Your task to perform on an android device: Open the calendar app, open the side menu, and click the "Day" option Image 0: 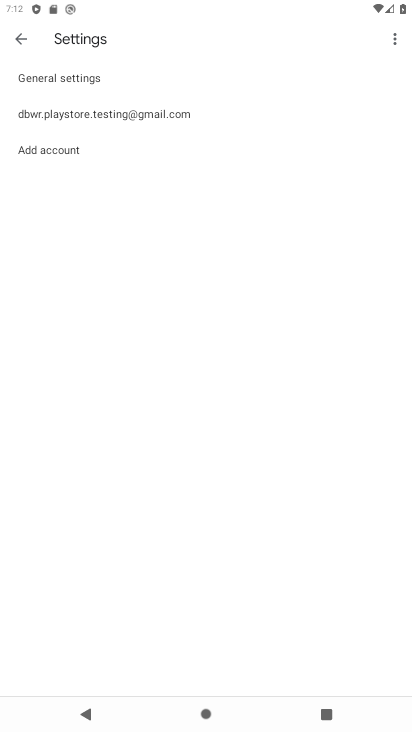
Step 0: press home button
Your task to perform on an android device: Open the calendar app, open the side menu, and click the "Day" option Image 1: 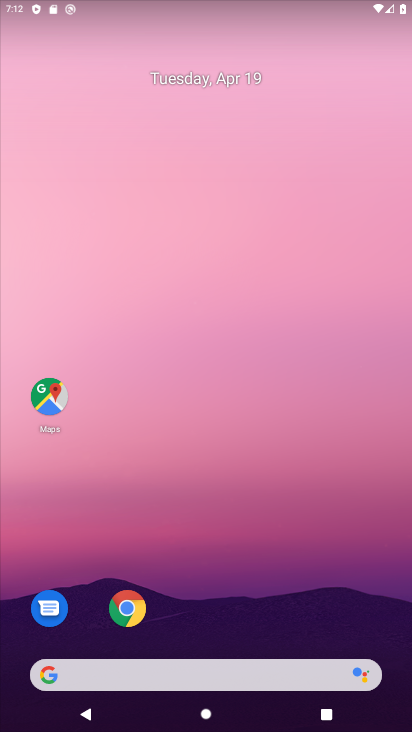
Step 1: drag from (277, 624) to (337, 98)
Your task to perform on an android device: Open the calendar app, open the side menu, and click the "Day" option Image 2: 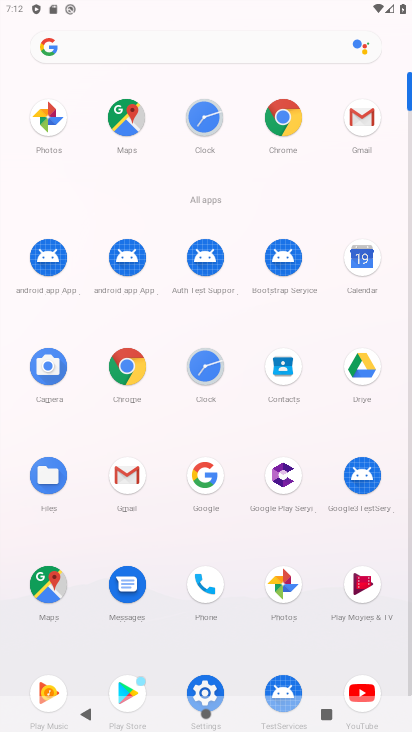
Step 2: click (362, 253)
Your task to perform on an android device: Open the calendar app, open the side menu, and click the "Day" option Image 3: 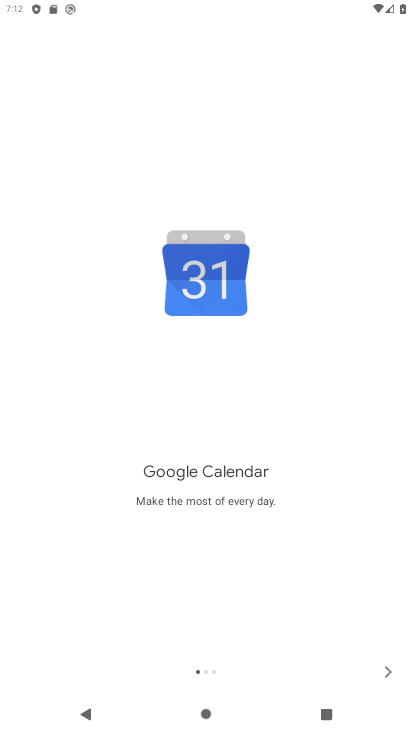
Step 3: click (387, 665)
Your task to perform on an android device: Open the calendar app, open the side menu, and click the "Day" option Image 4: 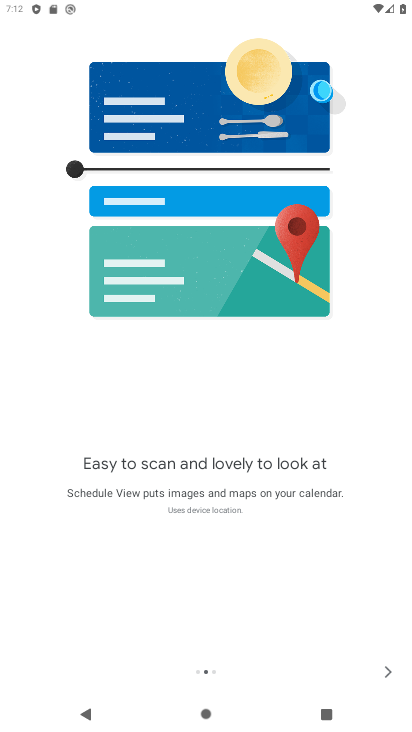
Step 4: click (387, 665)
Your task to perform on an android device: Open the calendar app, open the side menu, and click the "Day" option Image 5: 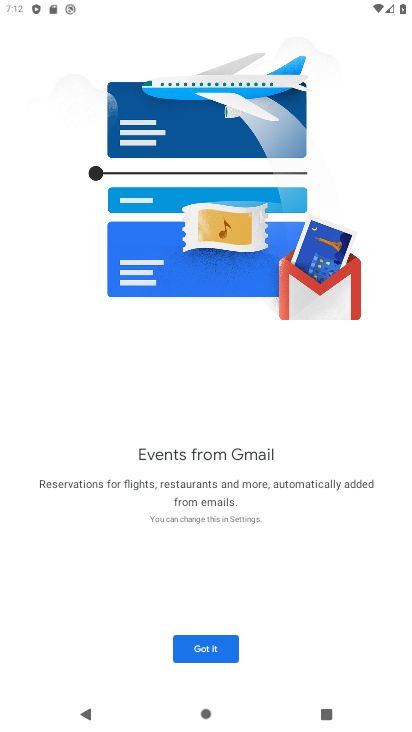
Step 5: click (190, 650)
Your task to perform on an android device: Open the calendar app, open the side menu, and click the "Day" option Image 6: 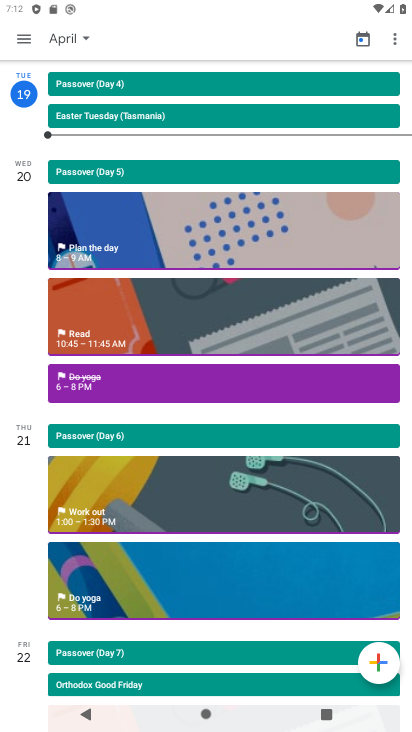
Step 6: click (18, 35)
Your task to perform on an android device: Open the calendar app, open the side menu, and click the "Day" option Image 7: 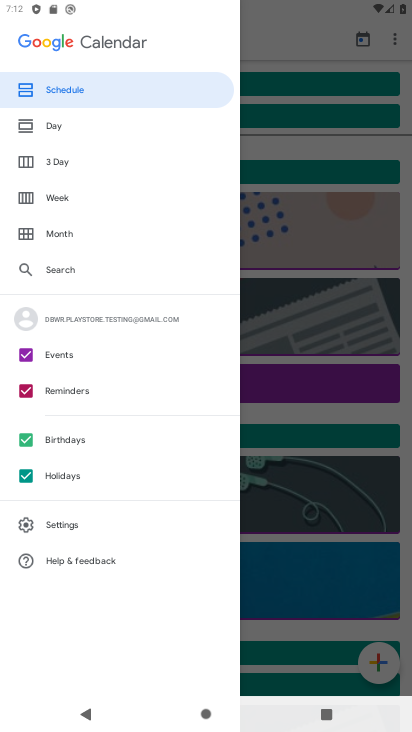
Step 7: click (49, 121)
Your task to perform on an android device: Open the calendar app, open the side menu, and click the "Day" option Image 8: 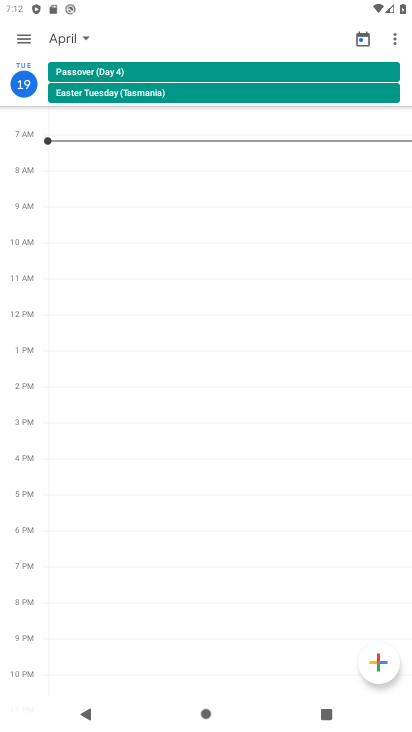
Step 8: task complete